Your task to perform on an android device: Search for 3d printed chess sets on Etsy. Image 0: 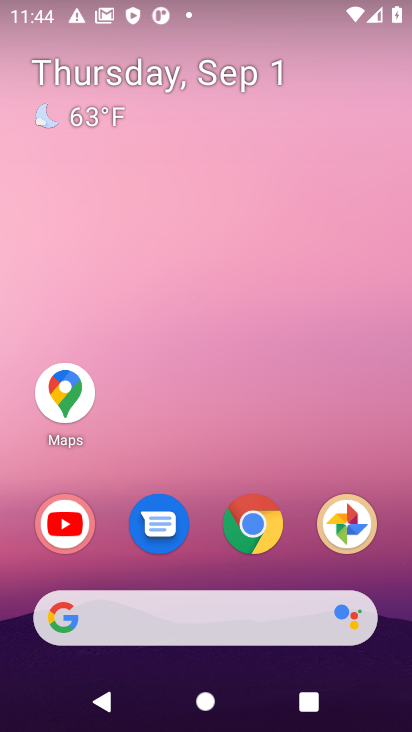
Step 0: click (252, 515)
Your task to perform on an android device: Search for 3d printed chess sets on Etsy. Image 1: 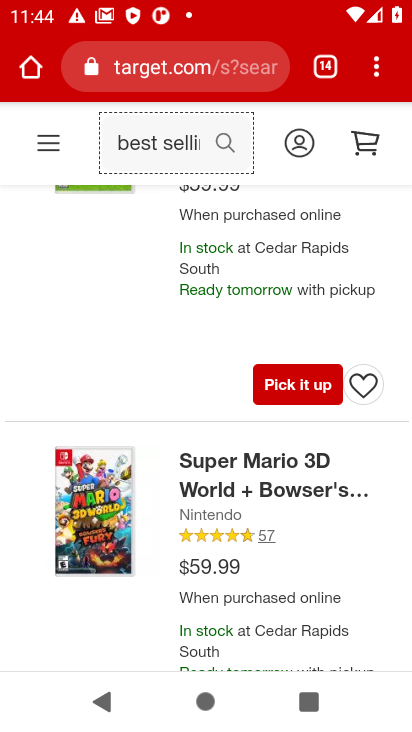
Step 1: click (326, 65)
Your task to perform on an android device: Search for 3d printed chess sets on Etsy. Image 2: 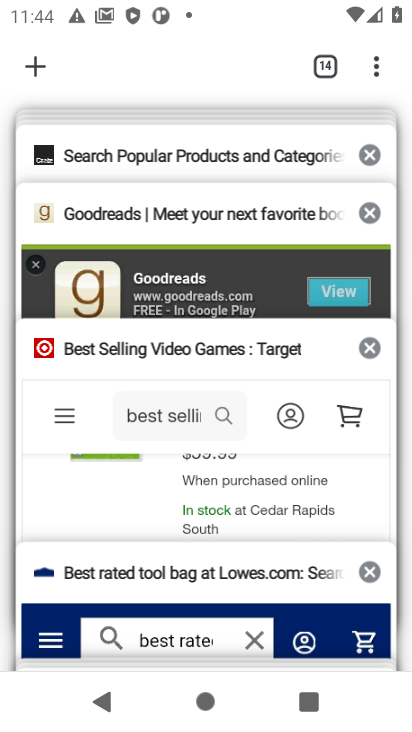
Step 2: drag from (193, 161) to (202, 469)
Your task to perform on an android device: Search for 3d printed chess sets on Etsy. Image 3: 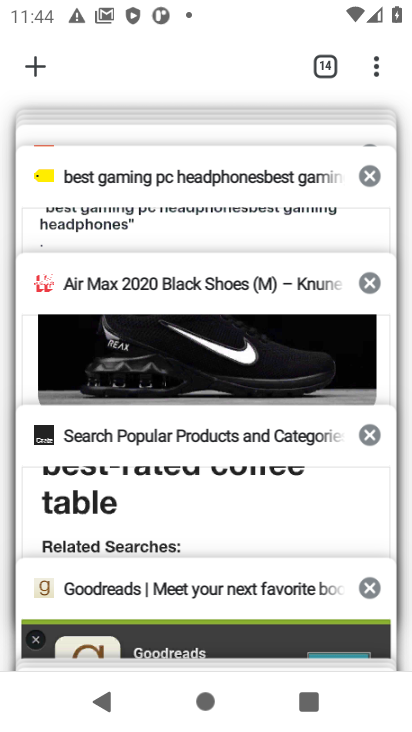
Step 3: drag from (194, 184) to (186, 431)
Your task to perform on an android device: Search for 3d printed chess sets on Etsy. Image 4: 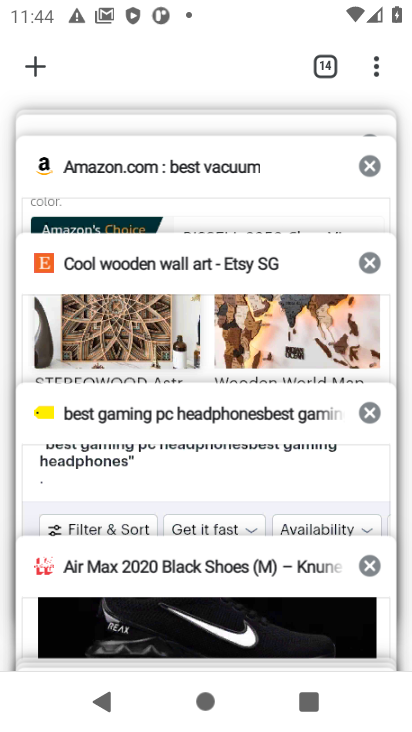
Step 4: click (222, 261)
Your task to perform on an android device: Search for 3d printed chess sets on Etsy. Image 5: 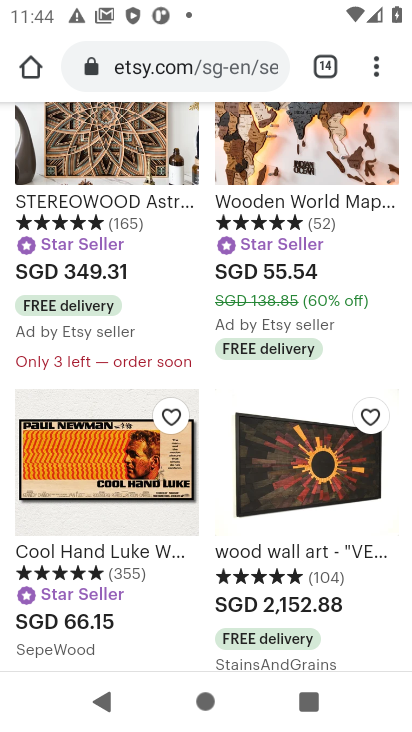
Step 5: drag from (204, 160) to (225, 509)
Your task to perform on an android device: Search for 3d printed chess sets on Etsy. Image 6: 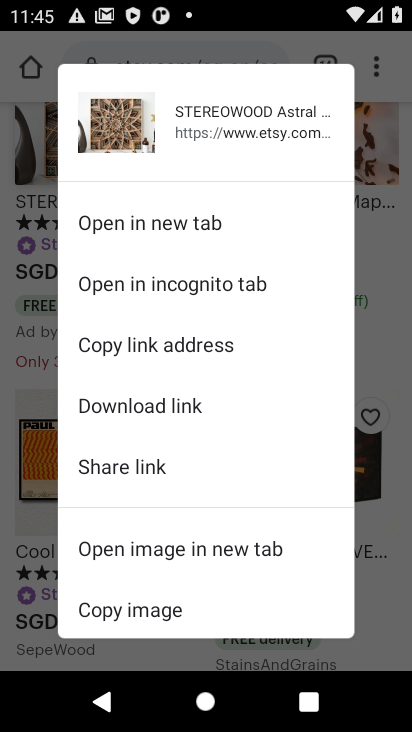
Step 6: click (381, 244)
Your task to perform on an android device: Search for 3d printed chess sets on Etsy. Image 7: 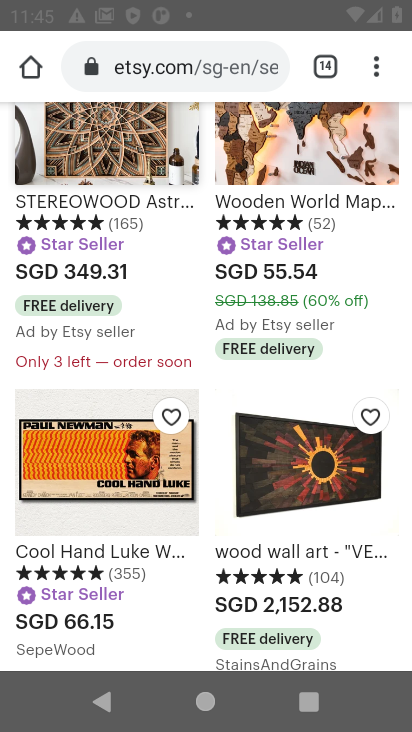
Step 7: drag from (381, 244) to (213, 448)
Your task to perform on an android device: Search for 3d printed chess sets on Etsy. Image 8: 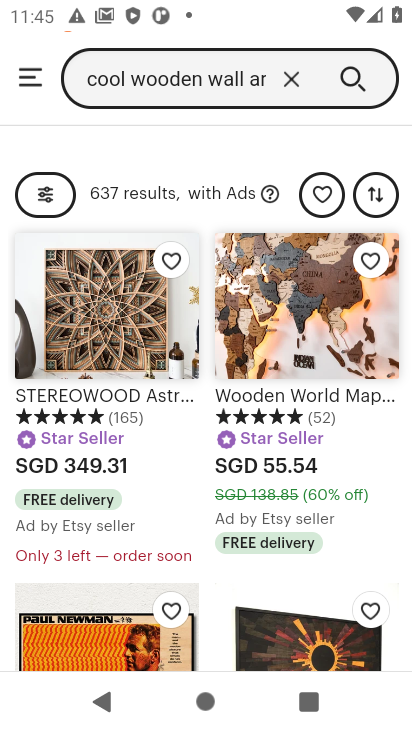
Step 8: click (295, 70)
Your task to perform on an android device: Search for 3d printed chess sets on Etsy. Image 9: 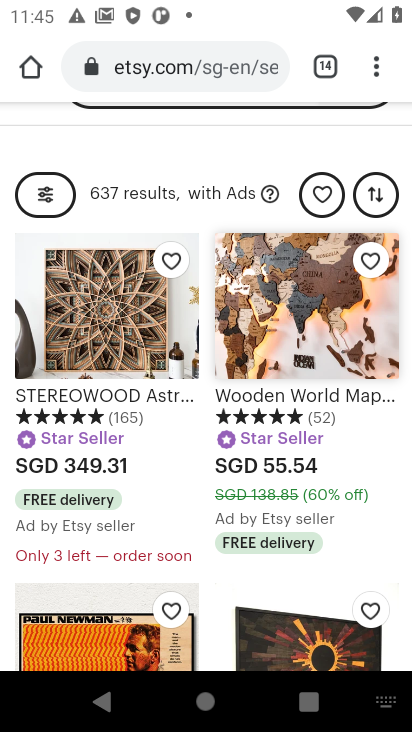
Step 9: drag from (209, 148) to (214, 423)
Your task to perform on an android device: Search for 3d printed chess sets on Etsy. Image 10: 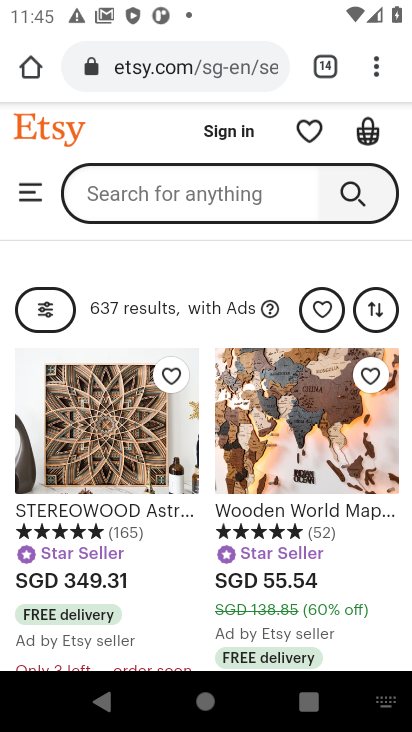
Step 10: click (206, 194)
Your task to perform on an android device: Search for 3d printed chess sets on Etsy. Image 11: 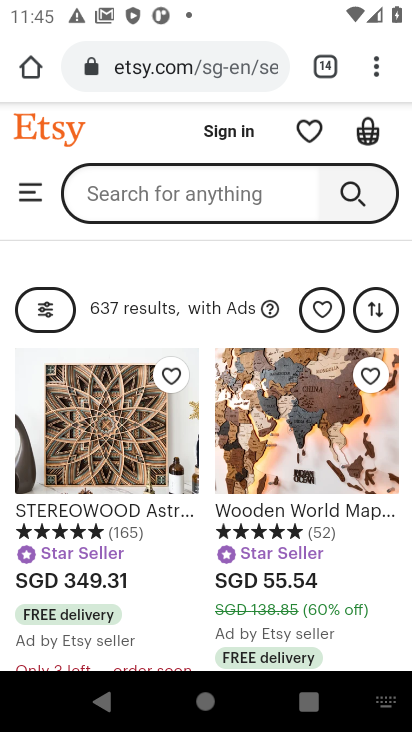
Step 11: type "3d printed chess sets "
Your task to perform on an android device: Search for 3d printed chess sets on Etsy. Image 12: 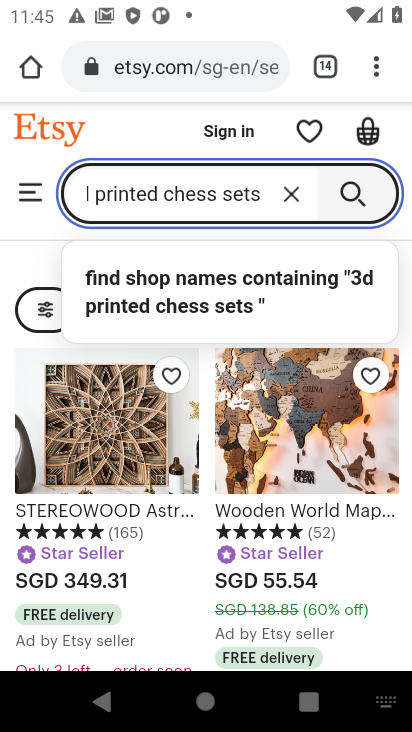
Step 12: click (350, 196)
Your task to perform on an android device: Search for 3d printed chess sets on Etsy. Image 13: 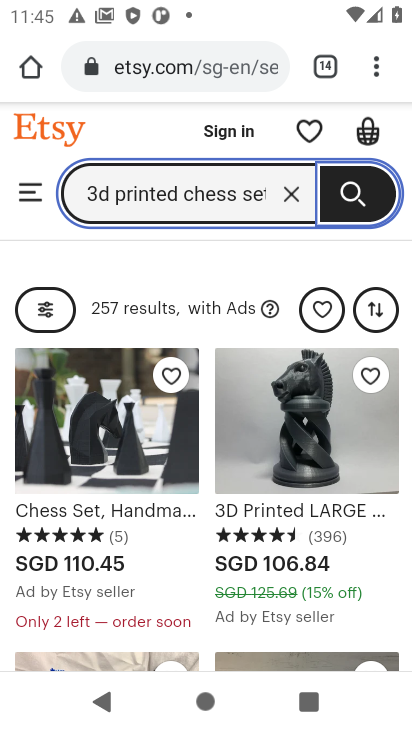
Step 13: drag from (351, 605) to (325, 357)
Your task to perform on an android device: Search for 3d printed chess sets on Etsy. Image 14: 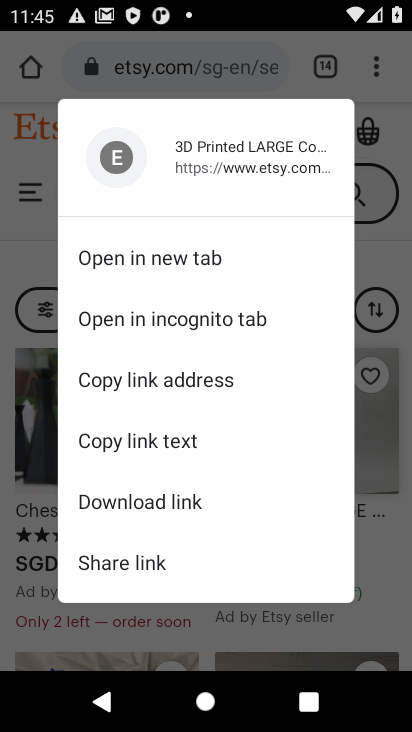
Step 14: click (391, 540)
Your task to perform on an android device: Search for 3d printed chess sets on Etsy. Image 15: 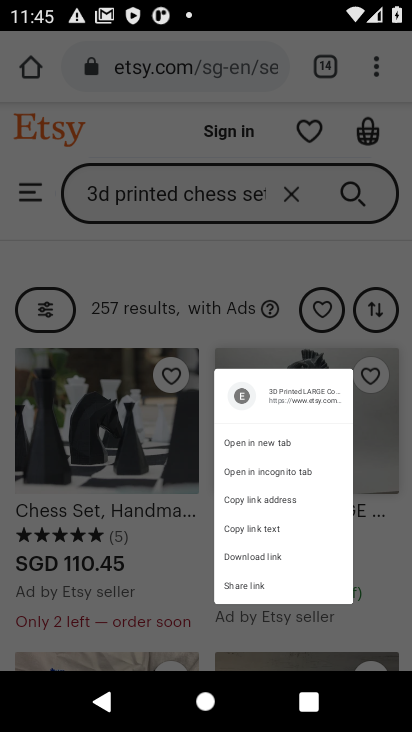
Step 15: click (365, 228)
Your task to perform on an android device: Search for 3d printed chess sets on Etsy. Image 16: 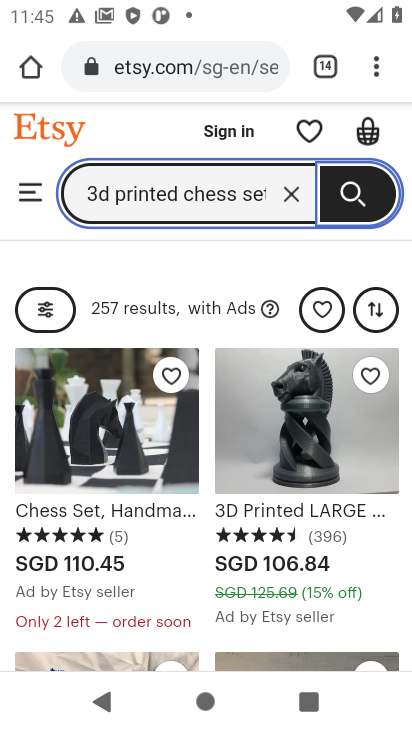
Step 16: task complete